Your task to perform on an android device: Open ESPN.com Image 0: 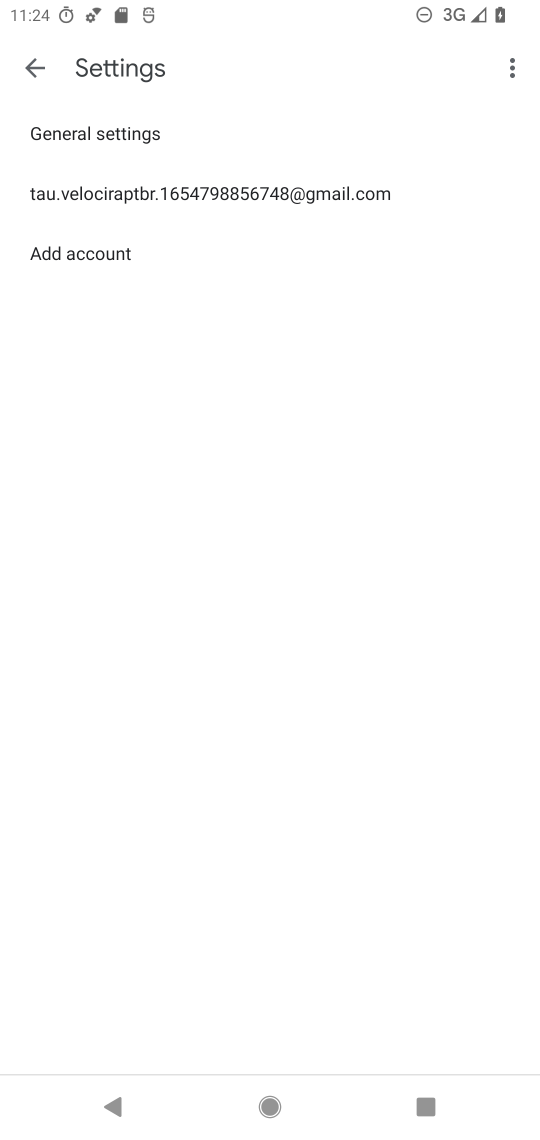
Step 0: press home button
Your task to perform on an android device: Open ESPN.com Image 1: 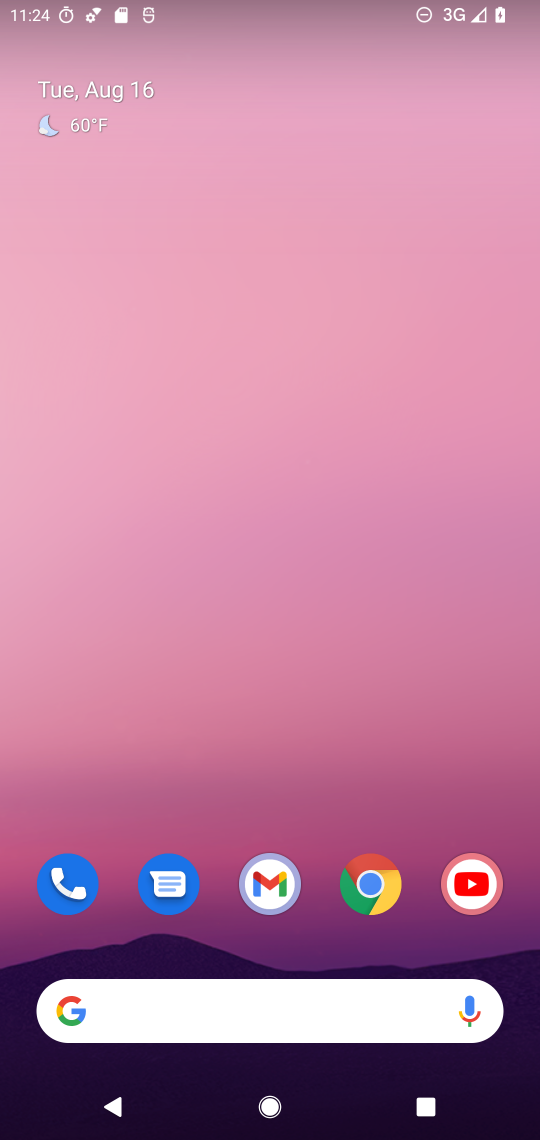
Step 1: click (367, 887)
Your task to perform on an android device: Open ESPN.com Image 2: 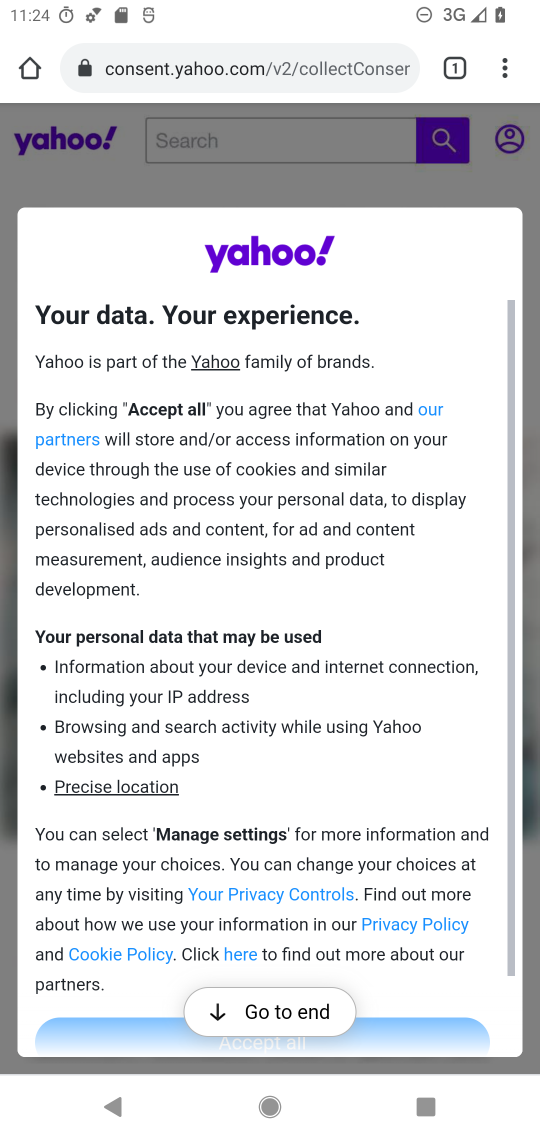
Step 2: click (246, 71)
Your task to perform on an android device: Open ESPN.com Image 3: 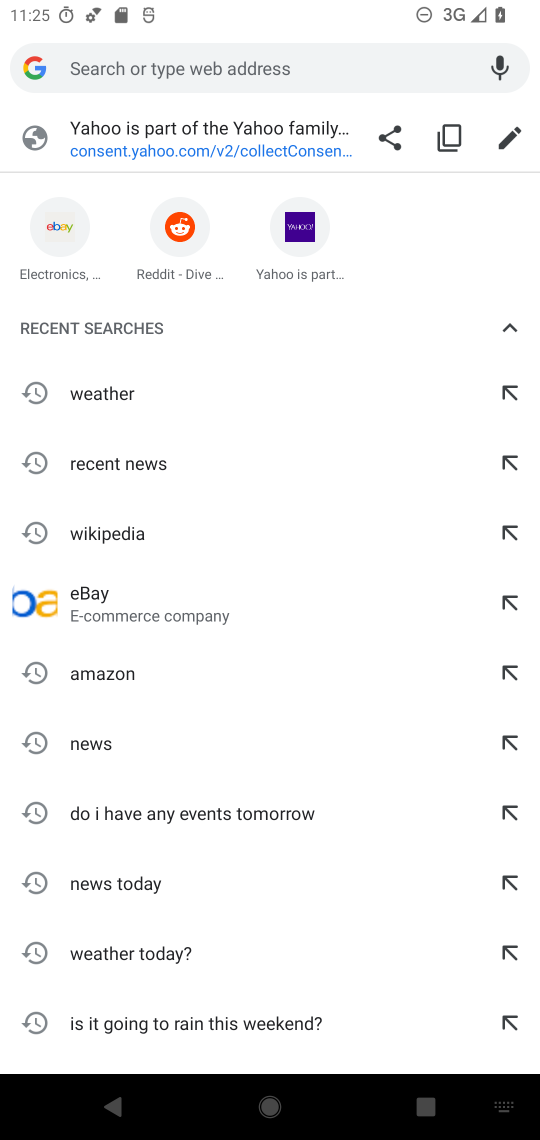
Step 3: type "www.espn.com"
Your task to perform on an android device: Open ESPN.com Image 4: 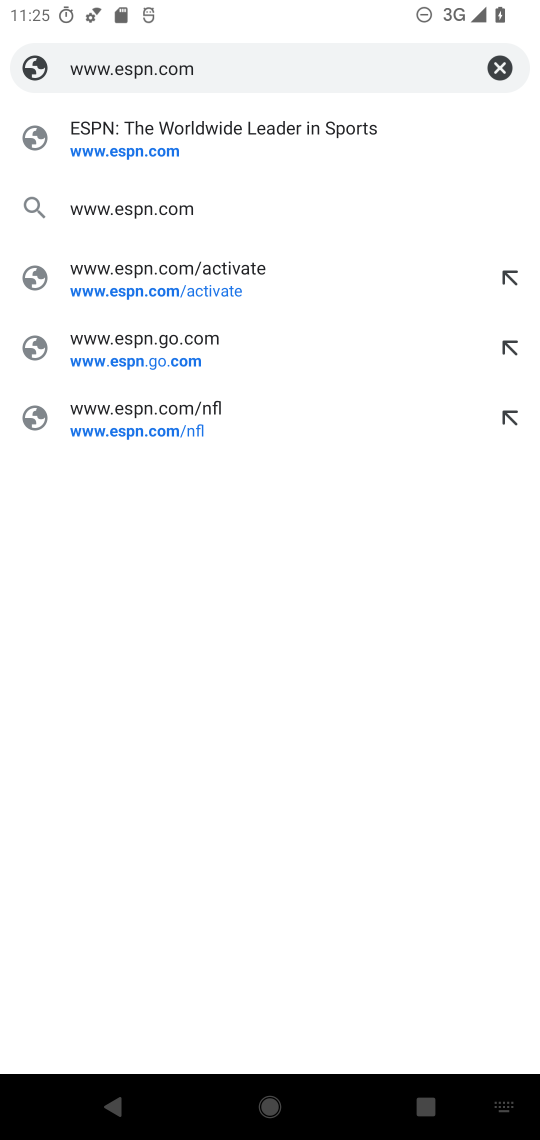
Step 4: click (107, 155)
Your task to perform on an android device: Open ESPN.com Image 5: 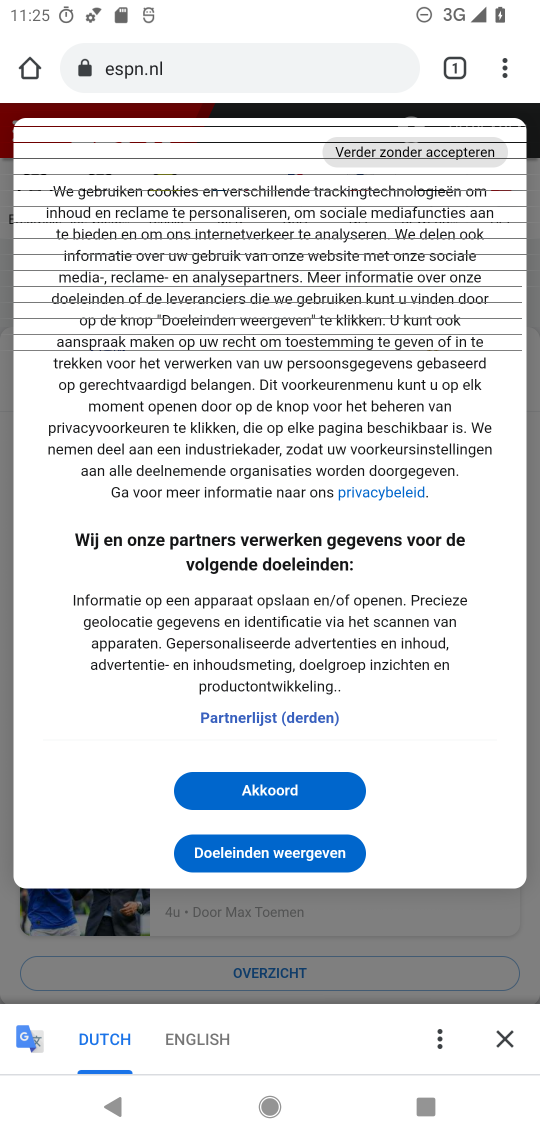
Step 5: task complete